Your task to perform on an android device: turn off priority inbox in the gmail app Image 0: 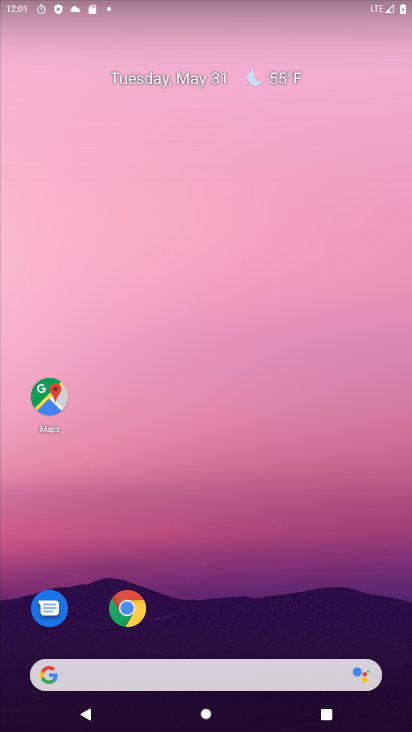
Step 0: drag from (326, 625) to (320, 6)
Your task to perform on an android device: turn off priority inbox in the gmail app Image 1: 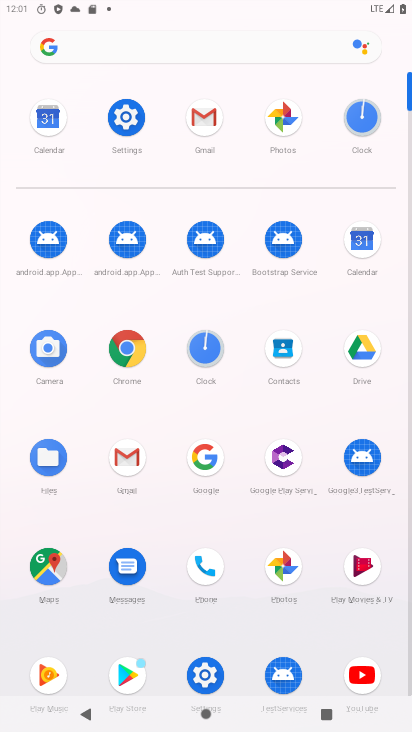
Step 1: click (205, 128)
Your task to perform on an android device: turn off priority inbox in the gmail app Image 2: 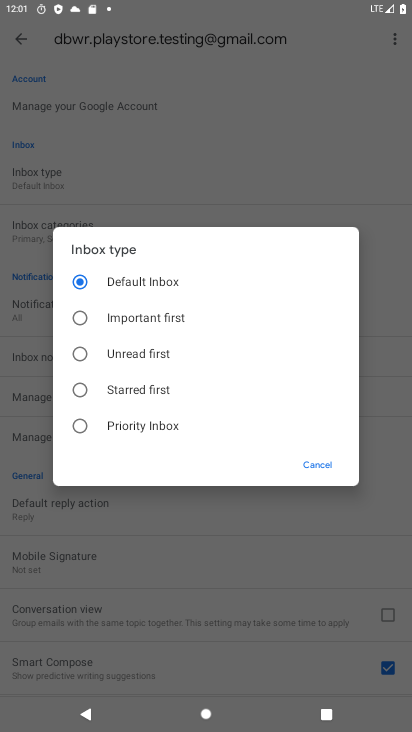
Step 2: task complete